Your task to perform on an android device: Open display settings Image 0: 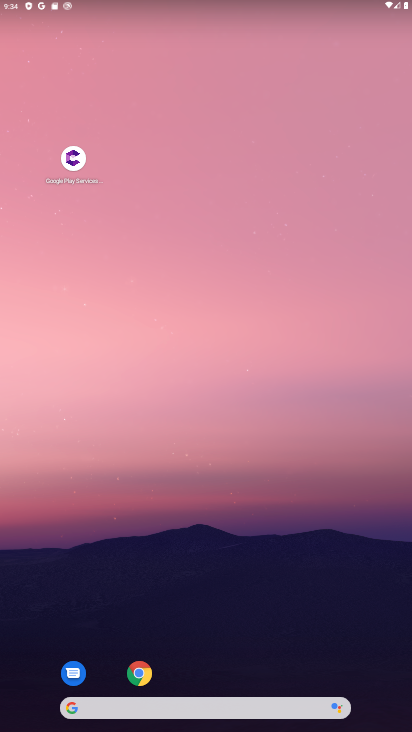
Step 0: drag from (234, 620) to (207, 166)
Your task to perform on an android device: Open display settings Image 1: 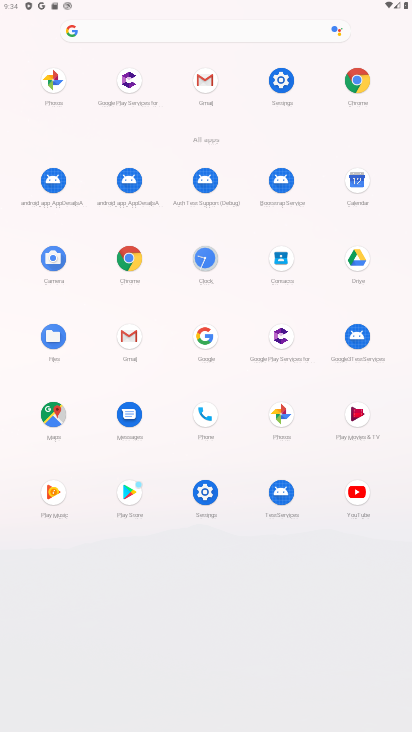
Step 1: click (281, 85)
Your task to perform on an android device: Open display settings Image 2: 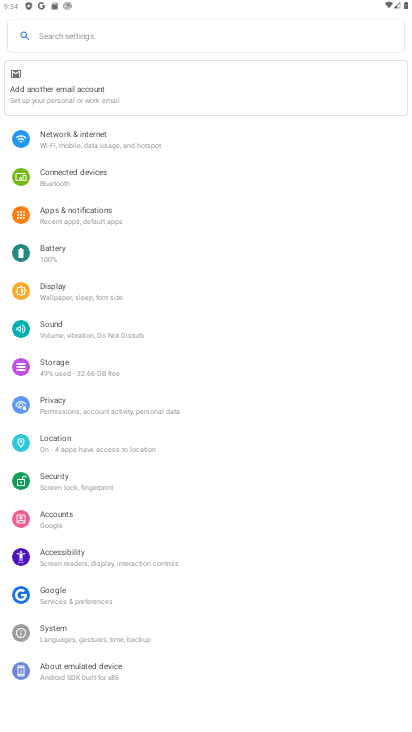
Step 2: click (132, 289)
Your task to perform on an android device: Open display settings Image 3: 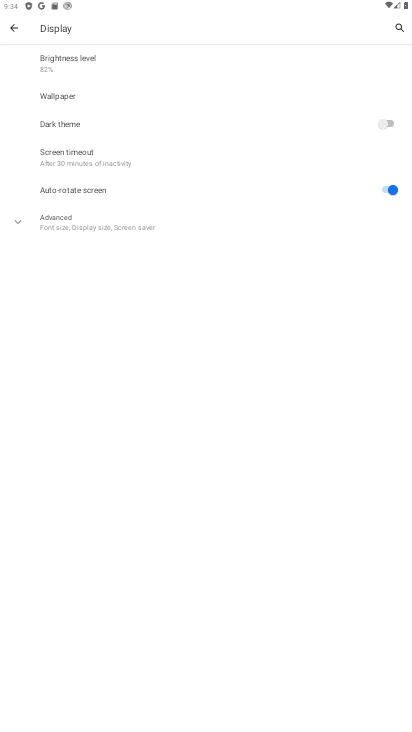
Step 3: task complete